Your task to perform on an android device: Open the stopwatch Image 0: 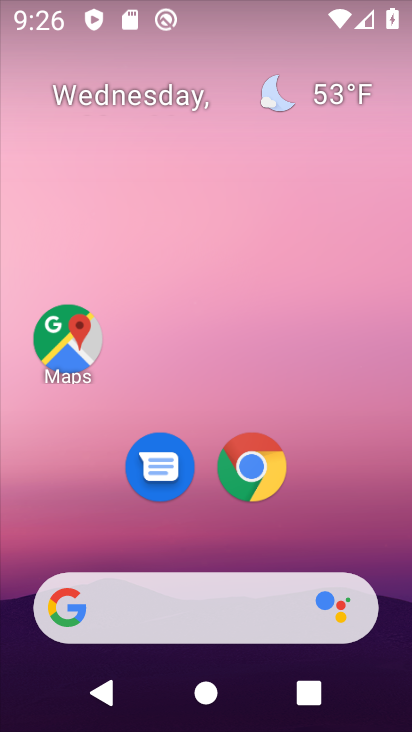
Step 0: press home button
Your task to perform on an android device: Open the stopwatch Image 1: 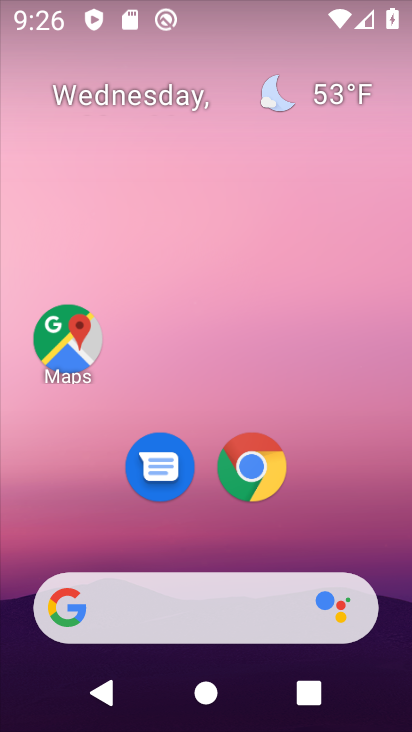
Step 1: drag from (342, 502) to (329, 15)
Your task to perform on an android device: Open the stopwatch Image 2: 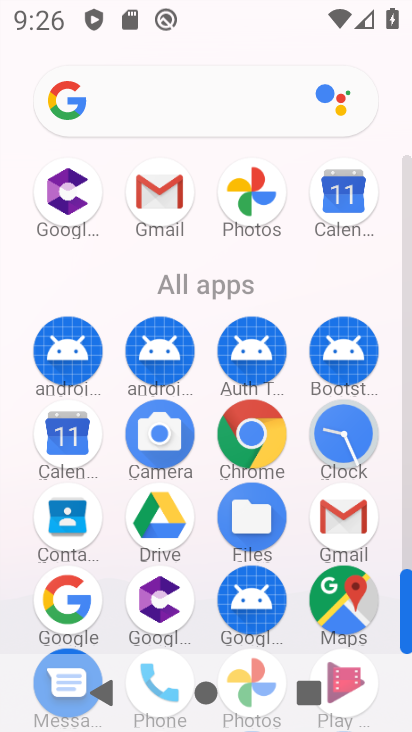
Step 2: click (336, 430)
Your task to perform on an android device: Open the stopwatch Image 3: 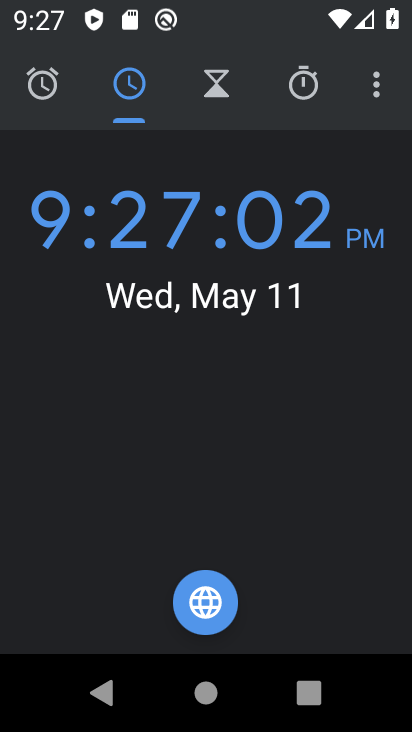
Step 3: click (326, 89)
Your task to perform on an android device: Open the stopwatch Image 4: 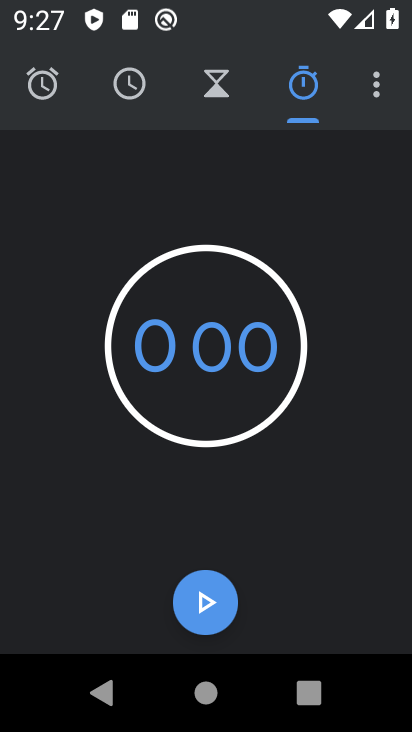
Step 4: task complete